Your task to perform on an android device: Open Youtube and go to "Your channel" Image 0: 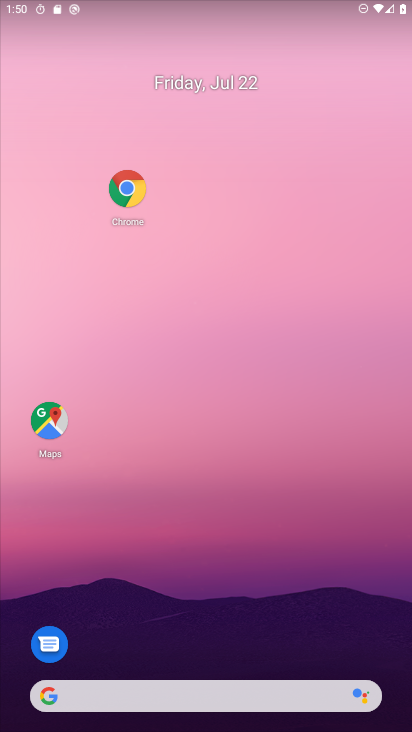
Step 0: drag from (242, 659) to (219, 140)
Your task to perform on an android device: Open Youtube and go to "Your channel" Image 1: 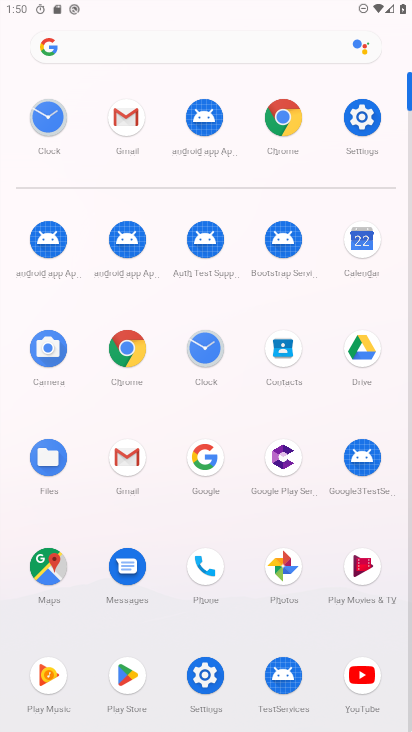
Step 1: click (358, 663)
Your task to perform on an android device: Open Youtube and go to "Your channel" Image 2: 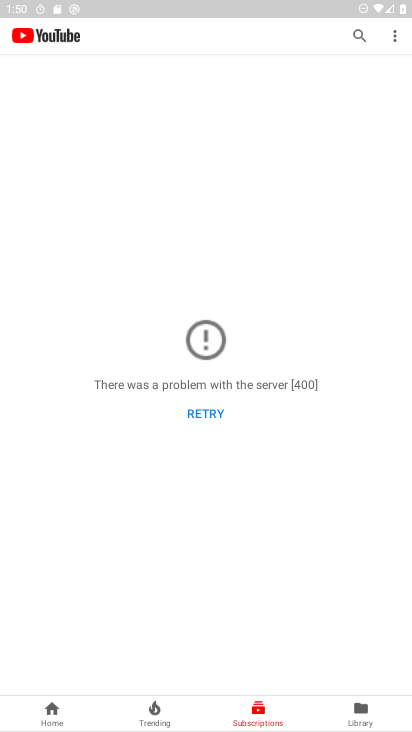
Step 2: click (349, 40)
Your task to perform on an android device: Open Youtube and go to "Your channel" Image 3: 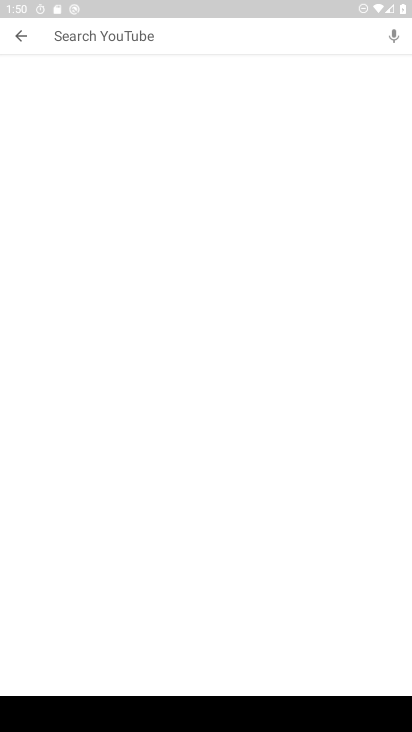
Step 3: click (349, 40)
Your task to perform on an android device: Open Youtube and go to "Your channel" Image 4: 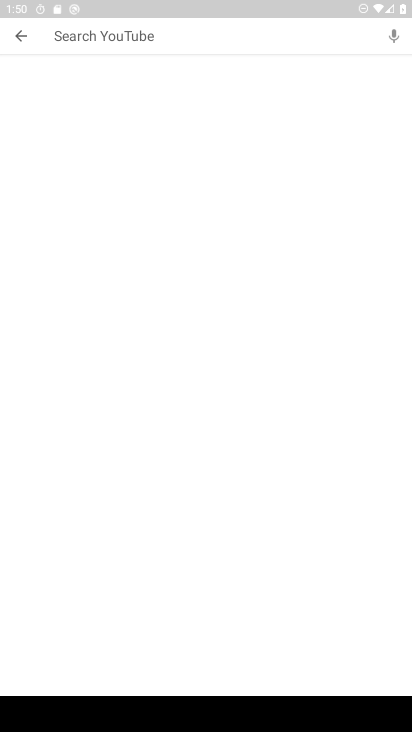
Step 4: type "your channel"
Your task to perform on an android device: Open Youtube and go to "Your channel" Image 5: 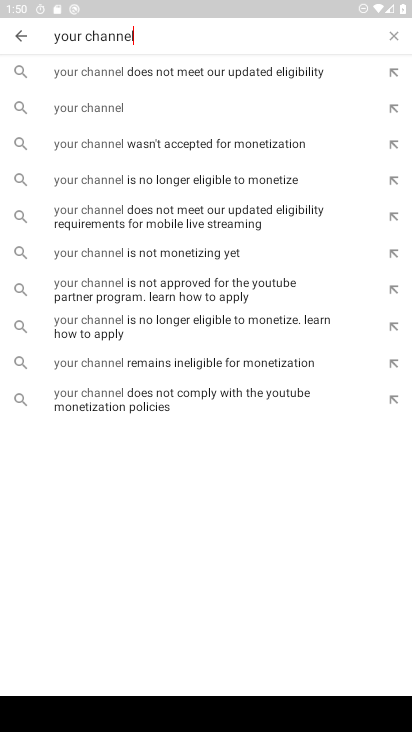
Step 5: click (150, 115)
Your task to perform on an android device: Open Youtube and go to "Your channel" Image 6: 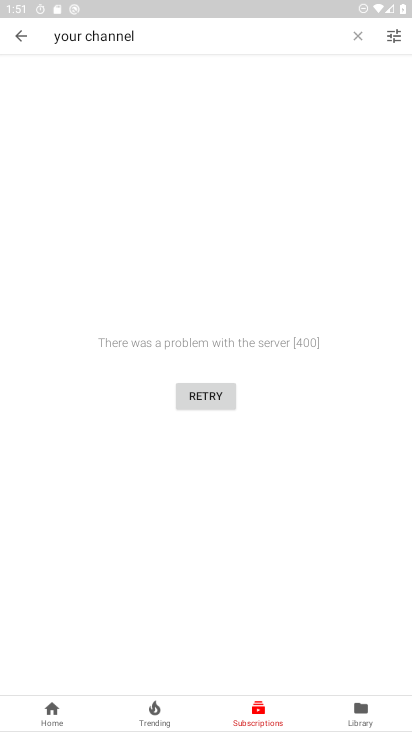
Step 6: click (103, 110)
Your task to perform on an android device: Open Youtube and go to "Your channel" Image 7: 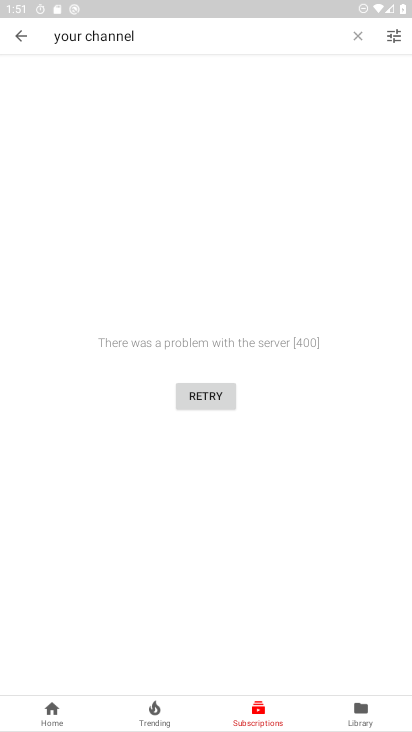
Step 7: task complete